Your task to perform on an android device: open a bookmark in the chrome app Image 0: 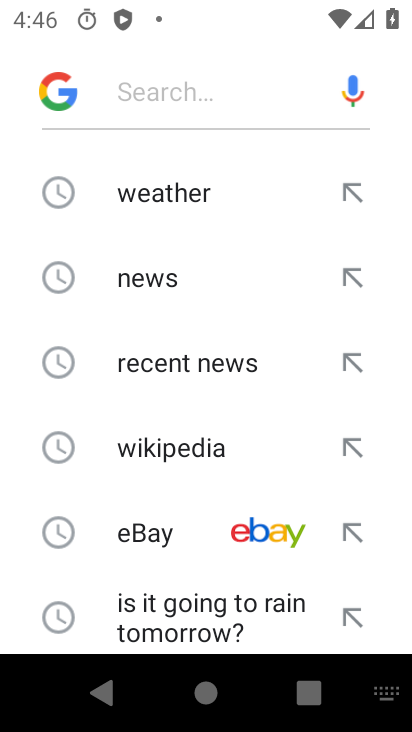
Step 0: press home button
Your task to perform on an android device: open a bookmark in the chrome app Image 1: 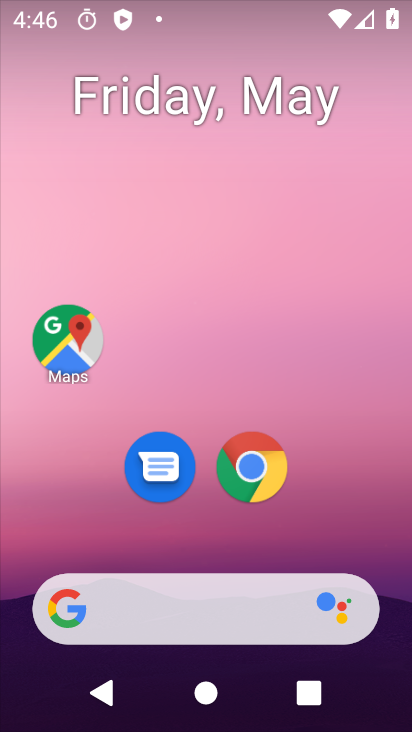
Step 1: click (259, 472)
Your task to perform on an android device: open a bookmark in the chrome app Image 2: 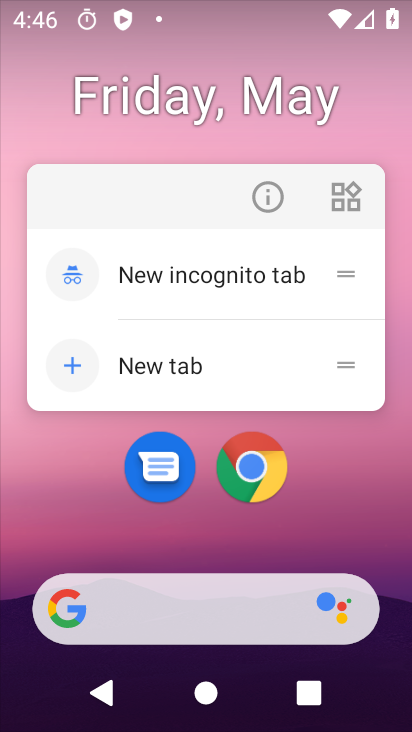
Step 2: click (247, 472)
Your task to perform on an android device: open a bookmark in the chrome app Image 3: 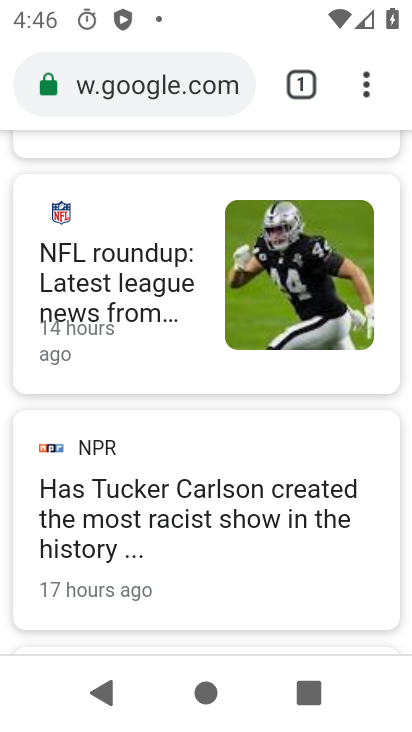
Step 3: task complete